Your task to perform on an android device: Open maps Image 0: 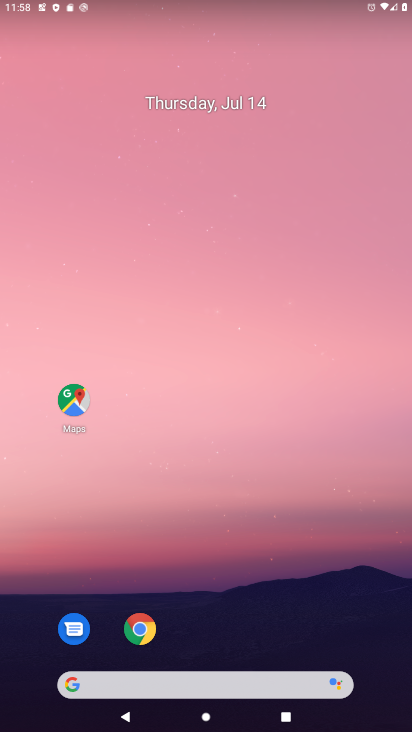
Step 0: press home button
Your task to perform on an android device: Open maps Image 1: 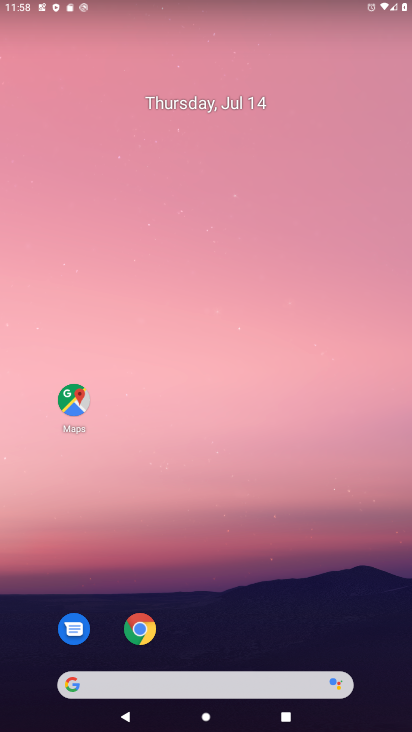
Step 1: drag from (214, 631) to (260, 37)
Your task to perform on an android device: Open maps Image 2: 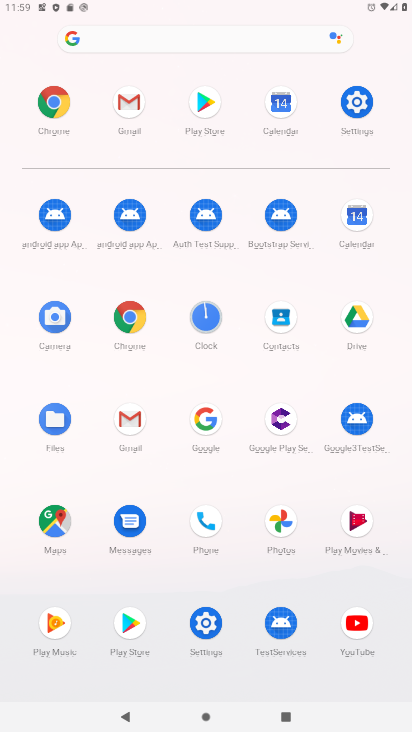
Step 2: click (54, 522)
Your task to perform on an android device: Open maps Image 3: 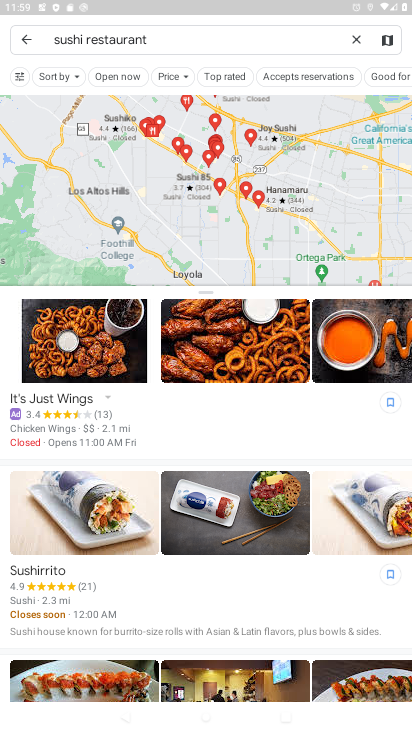
Step 3: click (26, 41)
Your task to perform on an android device: Open maps Image 4: 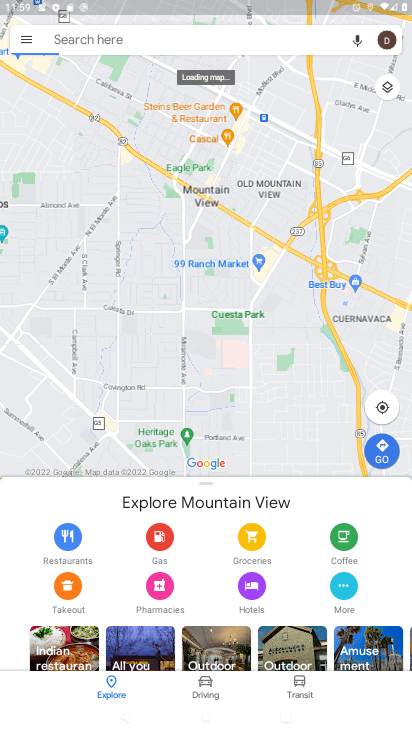
Step 4: task complete